Your task to perform on an android device: turn on improve location accuracy Image 0: 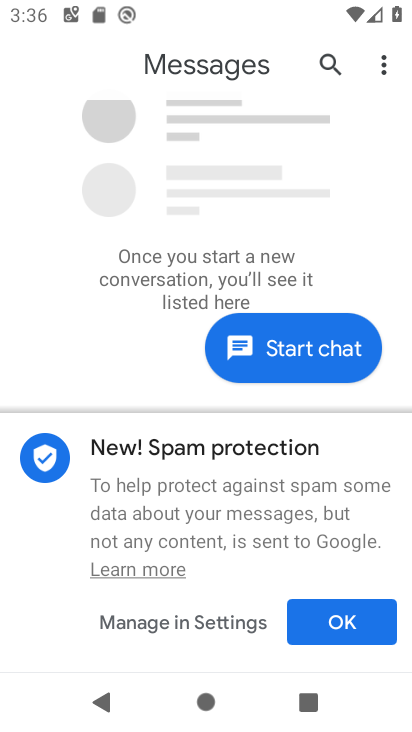
Step 0: press home button
Your task to perform on an android device: turn on improve location accuracy Image 1: 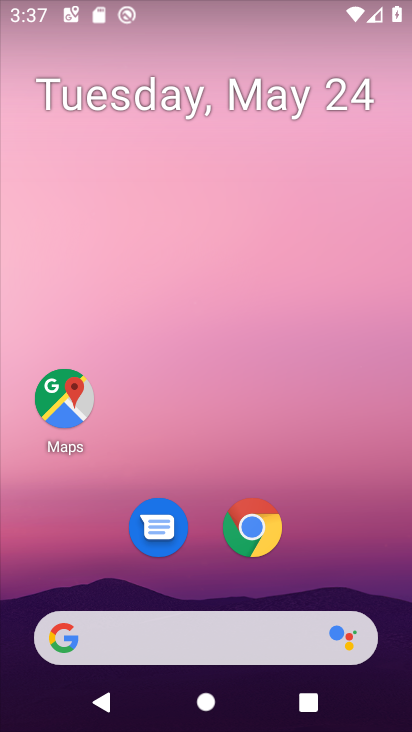
Step 1: drag from (320, 588) to (306, 9)
Your task to perform on an android device: turn on improve location accuracy Image 2: 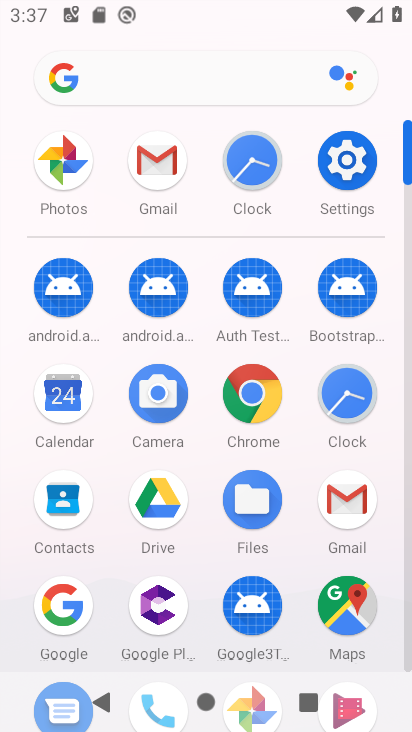
Step 2: click (346, 159)
Your task to perform on an android device: turn on improve location accuracy Image 3: 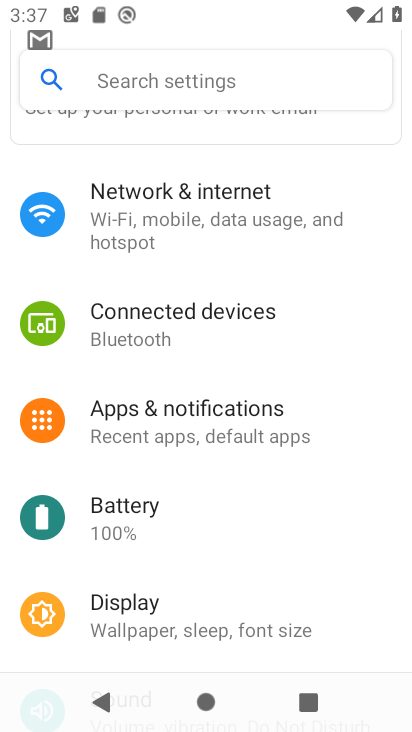
Step 3: drag from (392, 522) to (389, 278)
Your task to perform on an android device: turn on improve location accuracy Image 4: 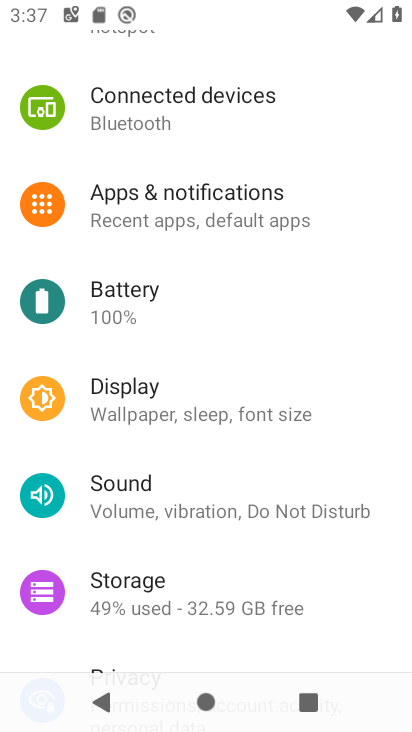
Step 4: drag from (298, 468) to (299, 164)
Your task to perform on an android device: turn on improve location accuracy Image 5: 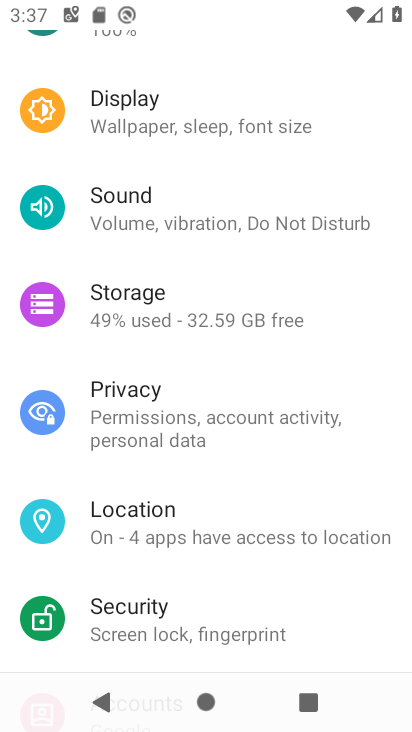
Step 5: click (110, 533)
Your task to perform on an android device: turn on improve location accuracy Image 6: 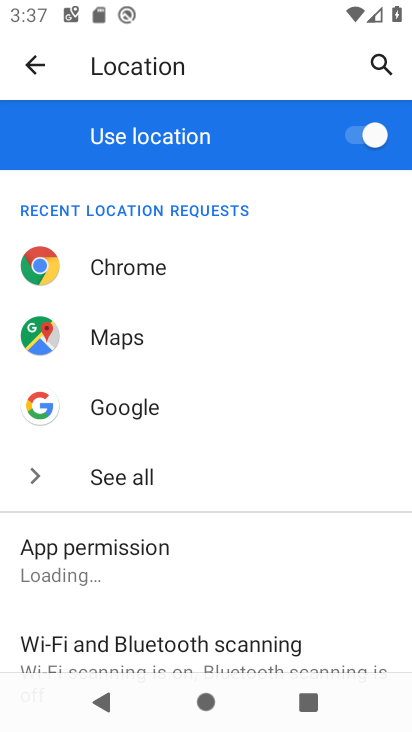
Step 6: drag from (246, 521) to (251, 138)
Your task to perform on an android device: turn on improve location accuracy Image 7: 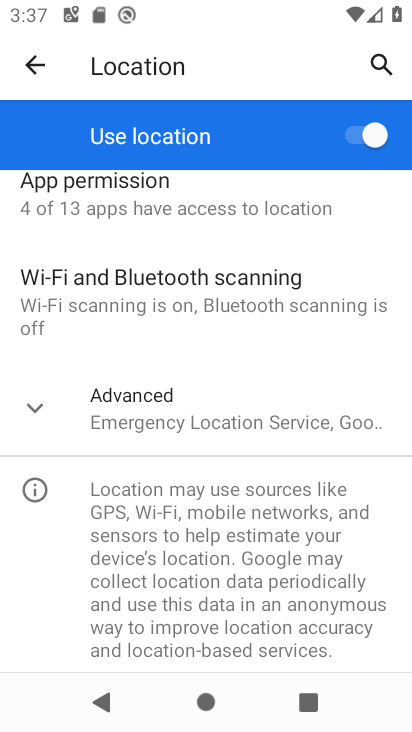
Step 7: click (33, 414)
Your task to perform on an android device: turn on improve location accuracy Image 8: 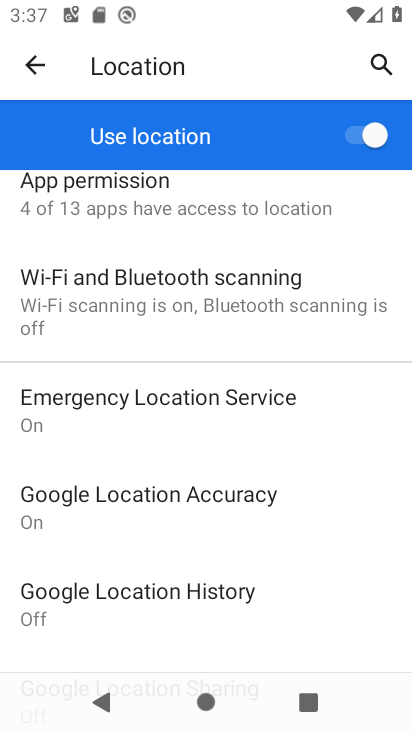
Step 8: click (87, 502)
Your task to perform on an android device: turn on improve location accuracy Image 9: 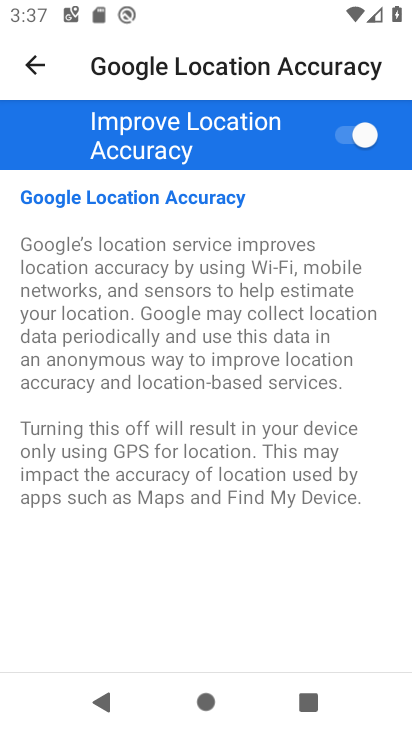
Step 9: task complete